Your task to perform on an android device: turn on the 24-hour format for clock Image 0: 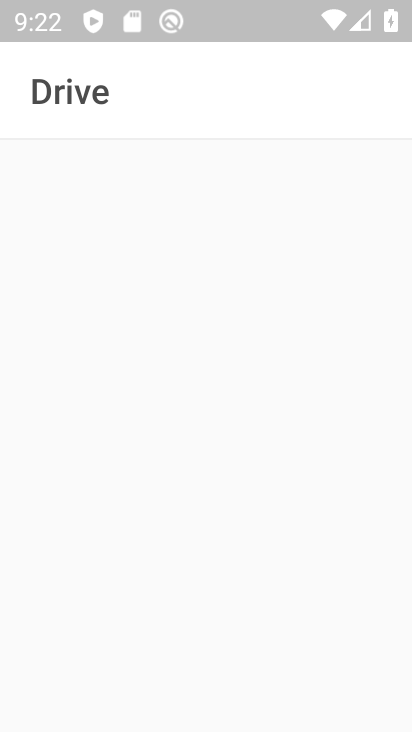
Step 0: press home button
Your task to perform on an android device: turn on the 24-hour format for clock Image 1: 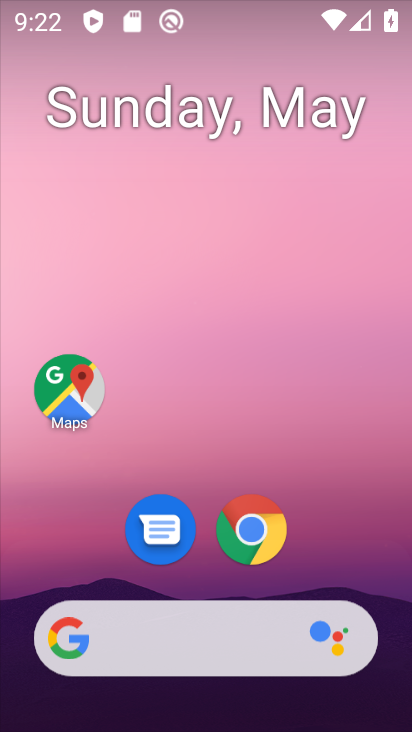
Step 1: drag from (203, 573) to (337, 36)
Your task to perform on an android device: turn on the 24-hour format for clock Image 2: 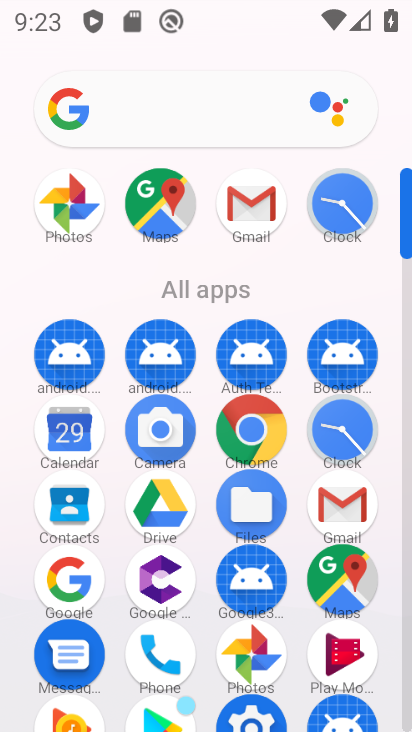
Step 2: click (344, 419)
Your task to perform on an android device: turn on the 24-hour format for clock Image 3: 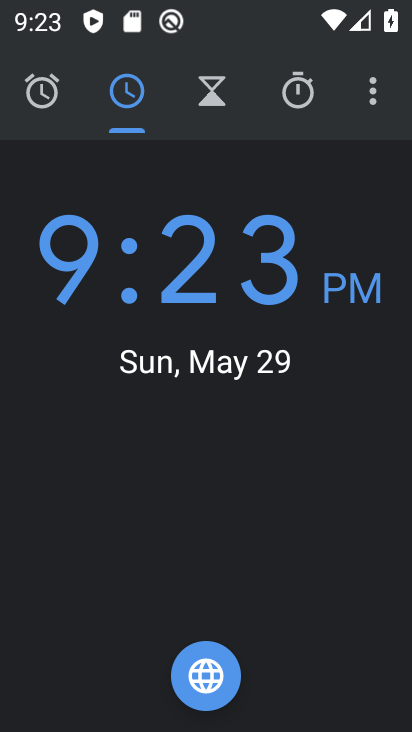
Step 3: click (375, 98)
Your task to perform on an android device: turn on the 24-hour format for clock Image 4: 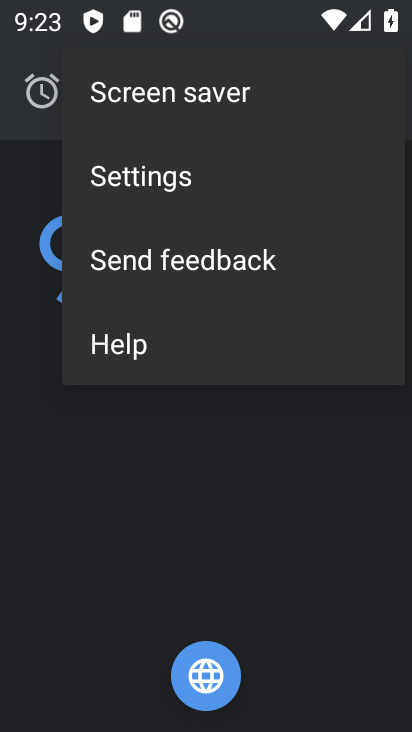
Step 4: click (171, 166)
Your task to perform on an android device: turn on the 24-hour format for clock Image 5: 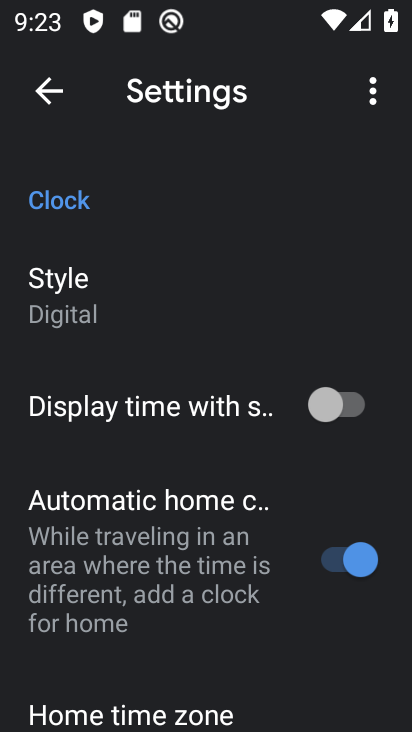
Step 5: drag from (133, 602) to (166, 265)
Your task to perform on an android device: turn on the 24-hour format for clock Image 6: 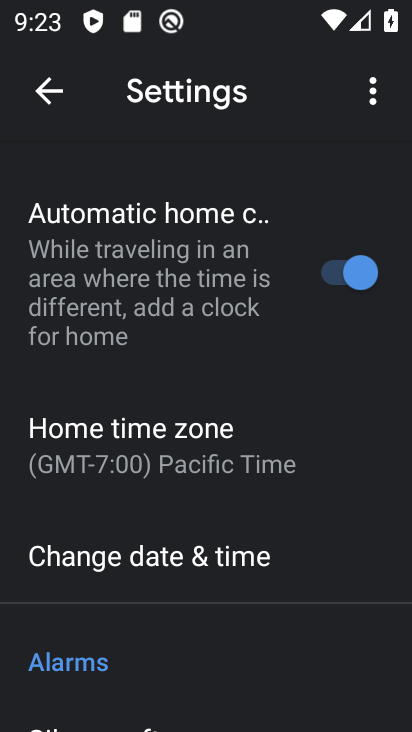
Step 6: click (173, 564)
Your task to perform on an android device: turn on the 24-hour format for clock Image 7: 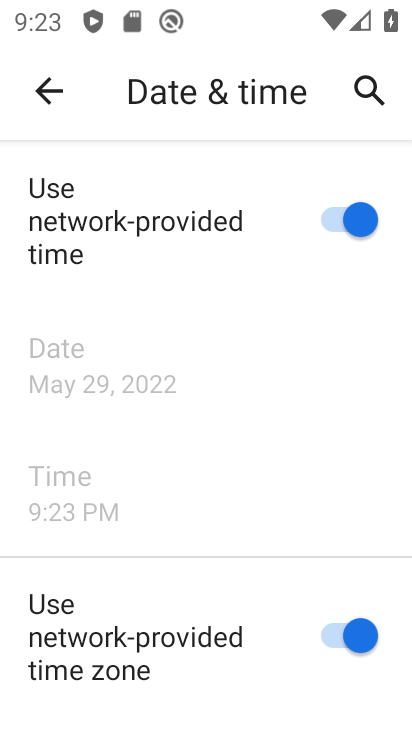
Step 7: drag from (120, 648) to (0, 284)
Your task to perform on an android device: turn on the 24-hour format for clock Image 8: 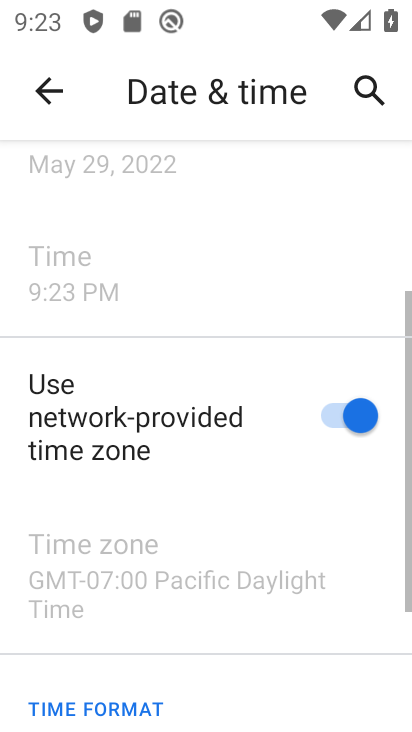
Step 8: drag from (192, 583) to (292, 107)
Your task to perform on an android device: turn on the 24-hour format for clock Image 9: 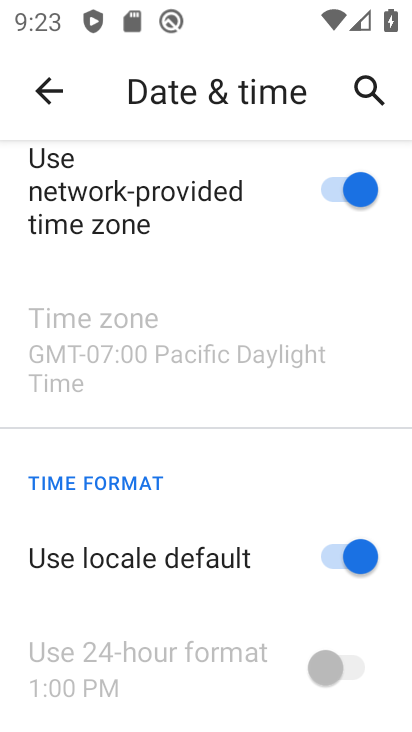
Step 9: click (332, 553)
Your task to perform on an android device: turn on the 24-hour format for clock Image 10: 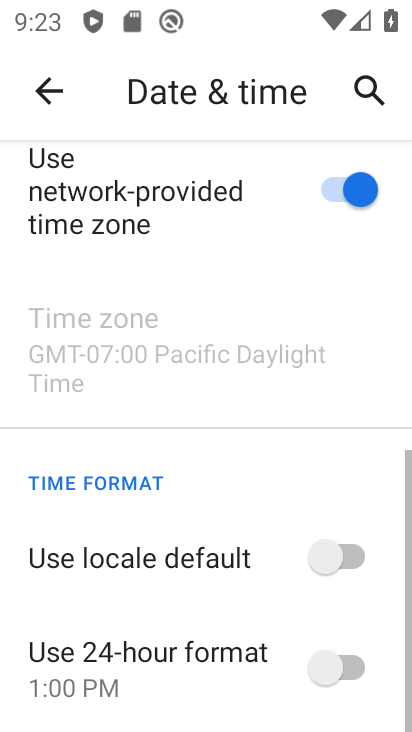
Step 10: click (316, 674)
Your task to perform on an android device: turn on the 24-hour format for clock Image 11: 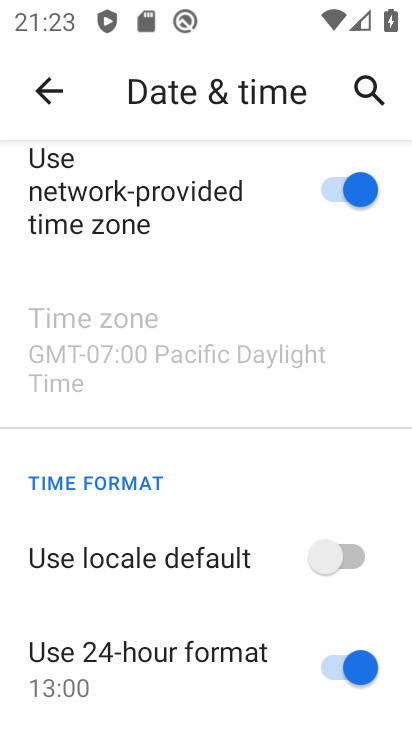
Step 11: task complete